Your task to perform on an android device: see tabs open on other devices in the chrome app Image 0: 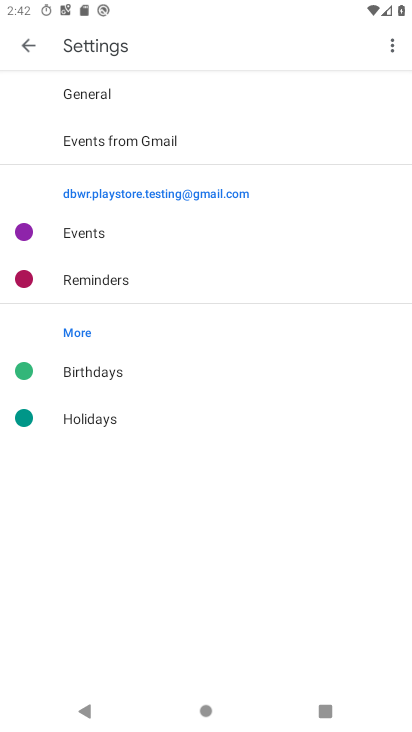
Step 0: press home button
Your task to perform on an android device: see tabs open on other devices in the chrome app Image 1: 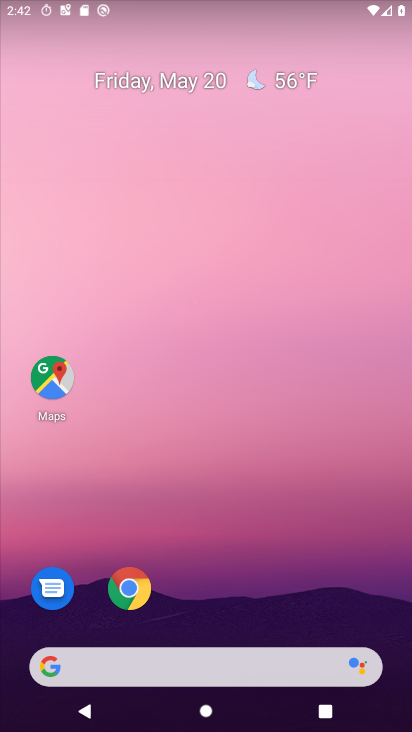
Step 1: click (131, 575)
Your task to perform on an android device: see tabs open on other devices in the chrome app Image 2: 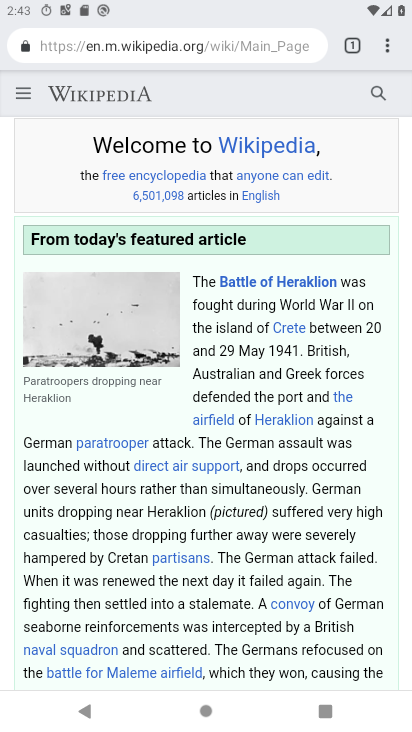
Step 2: click (343, 41)
Your task to perform on an android device: see tabs open on other devices in the chrome app Image 3: 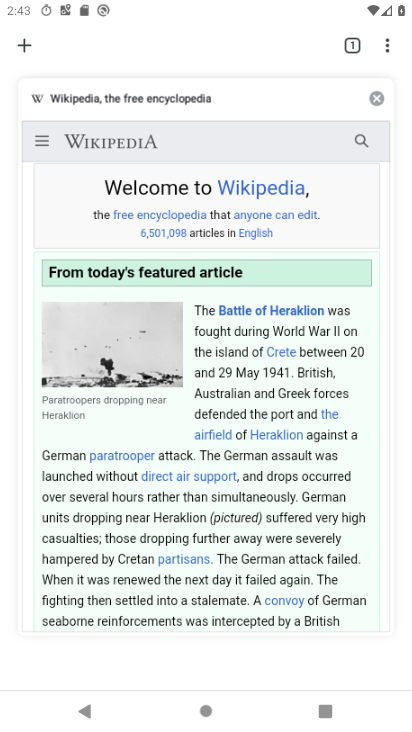
Step 3: click (20, 46)
Your task to perform on an android device: see tabs open on other devices in the chrome app Image 4: 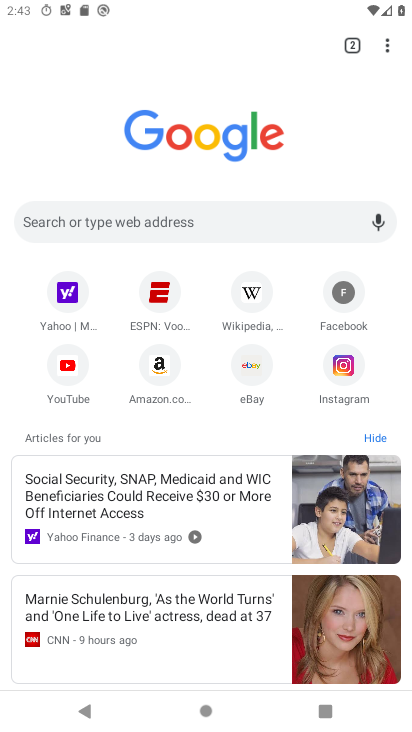
Step 4: task complete